Your task to perform on an android device: Open Google Chrome and open the bookmarks view Image 0: 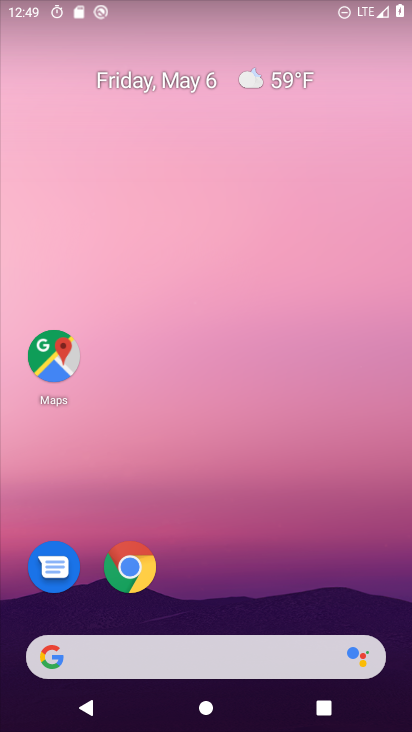
Step 0: click (116, 577)
Your task to perform on an android device: Open Google Chrome and open the bookmarks view Image 1: 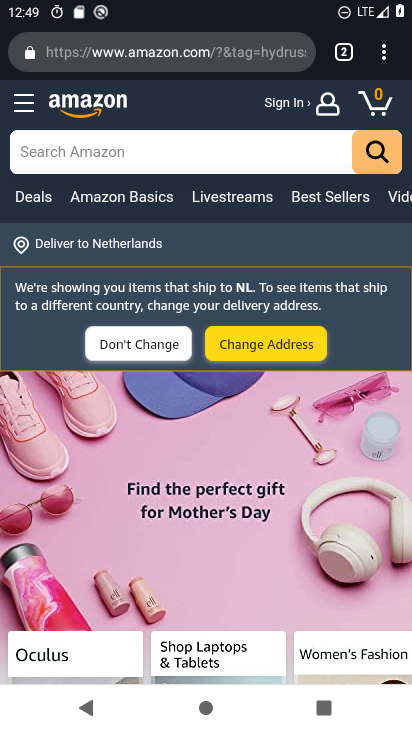
Step 1: task complete